Your task to perform on an android device: check google app version Image 0: 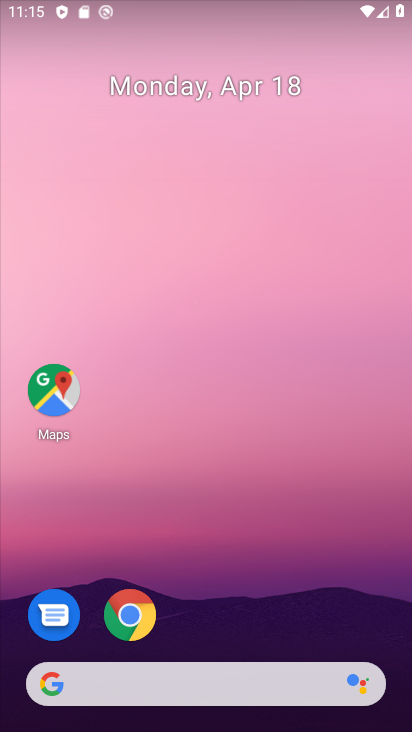
Step 0: drag from (372, 615) to (366, 90)
Your task to perform on an android device: check google app version Image 1: 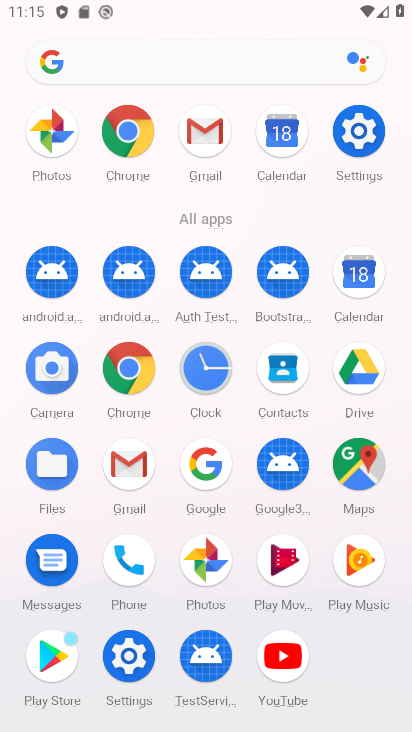
Step 1: click (207, 474)
Your task to perform on an android device: check google app version Image 2: 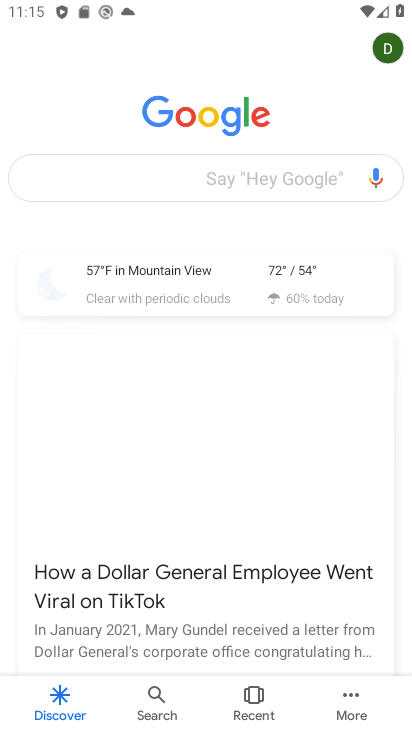
Step 2: click (351, 705)
Your task to perform on an android device: check google app version Image 3: 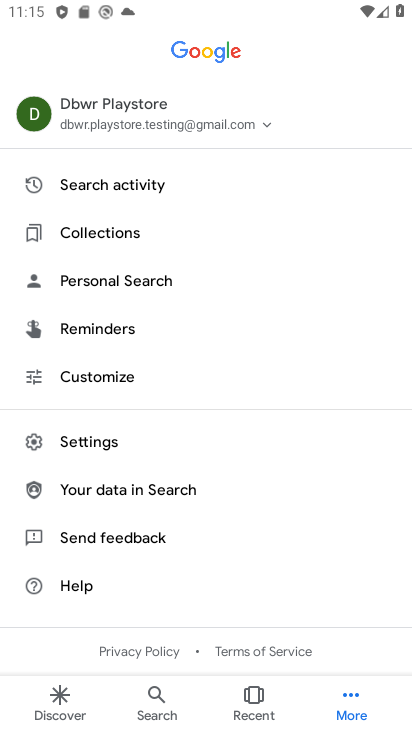
Step 3: click (100, 434)
Your task to perform on an android device: check google app version Image 4: 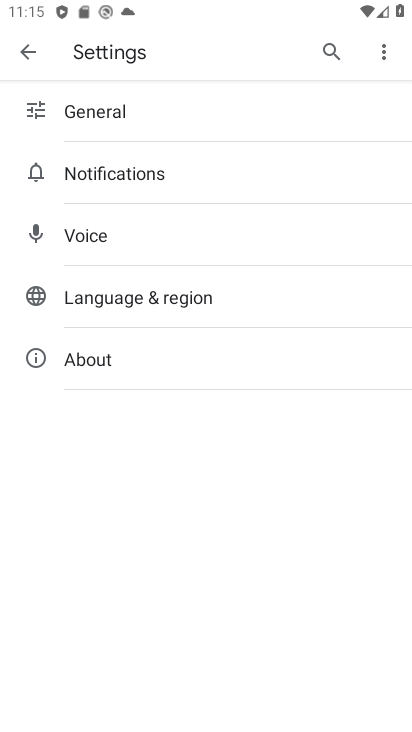
Step 4: click (128, 359)
Your task to perform on an android device: check google app version Image 5: 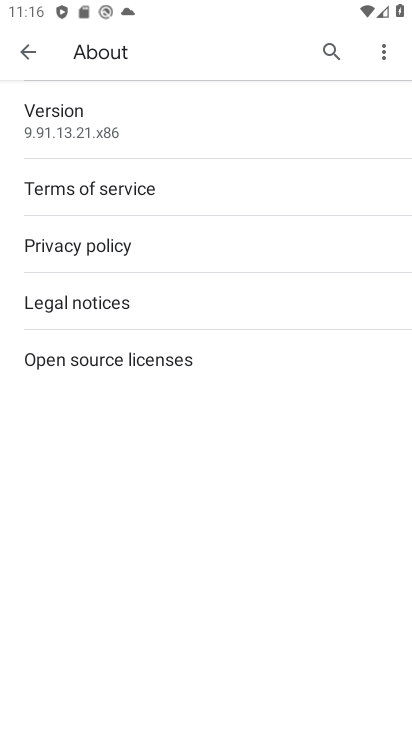
Step 5: task complete